Your task to perform on an android device: delete a single message in the gmail app Image 0: 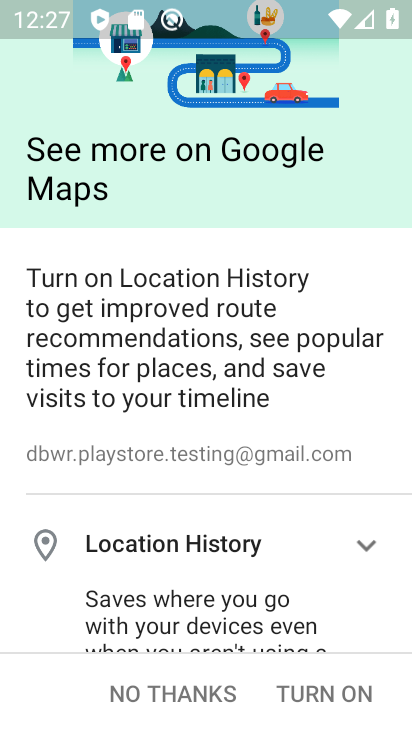
Step 0: click (131, 702)
Your task to perform on an android device: delete a single message in the gmail app Image 1: 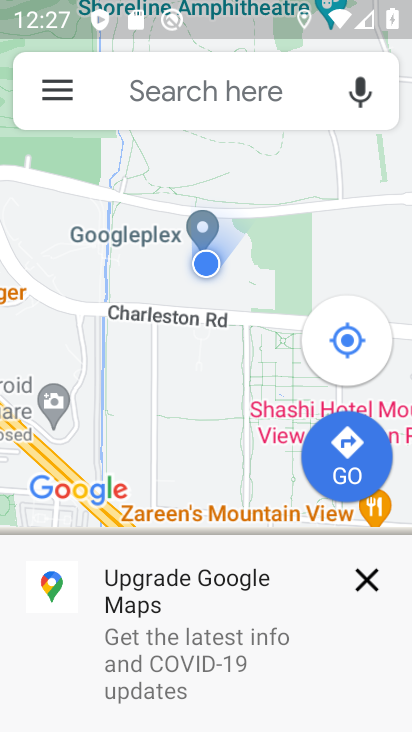
Step 1: press home button
Your task to perform on an android device: delete a single message in the gmail app Image 2: 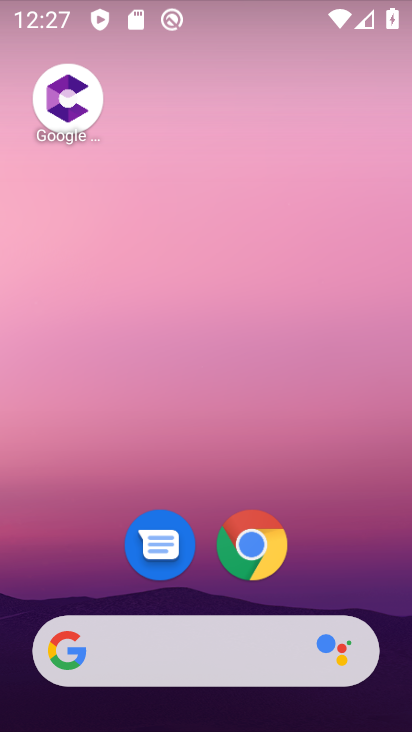
Step 2: drag from (299, 493) to (271, 233)
Your task to perform on an android device: delete a single message in the gmail app Image 3: 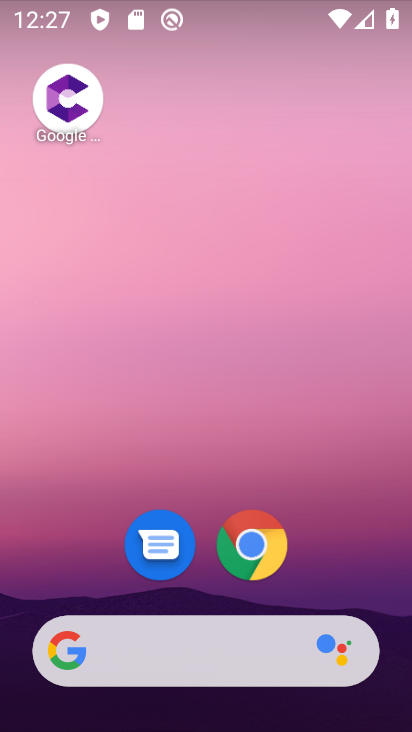
Step 3: drag from (204, 439) to (226, 123)
Your task to perform on an android device: delete a single message in the gmail app Image 4: 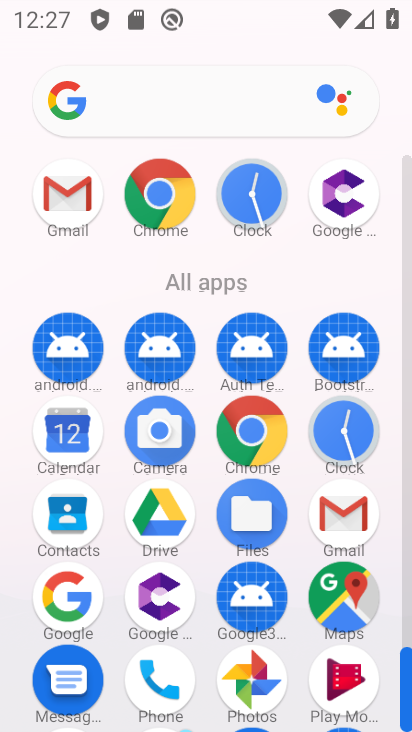
Step 4: click (361, 520)
Your task to perform on an android device: delete a single message in the gmail app Image 5: 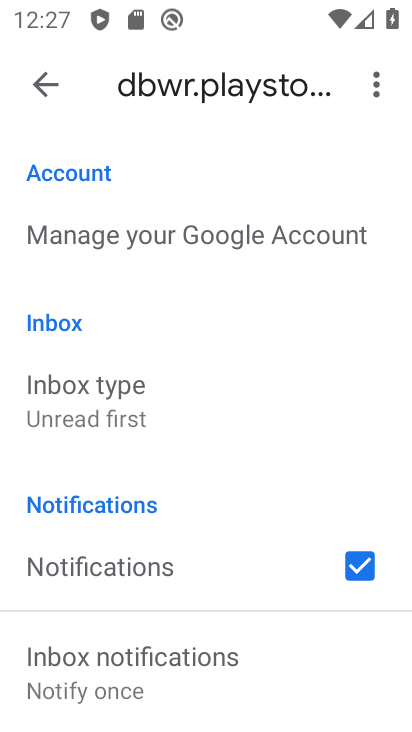
Step 5: press back button
Your task to perform on an android device: delete a single message in the gmail app Image 6: 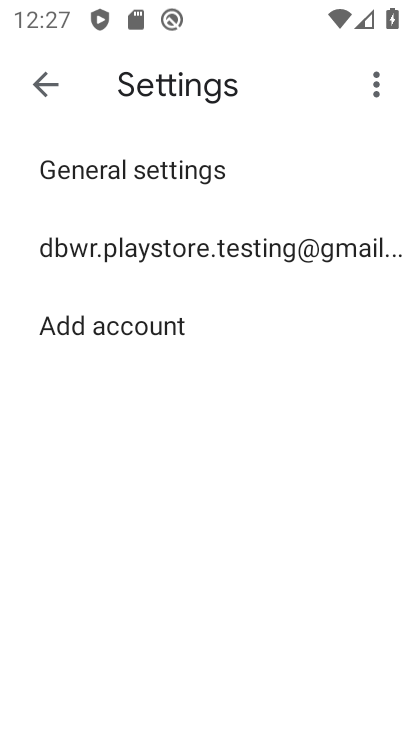
Step 6: press back button
Your task to perform on an android device: delete a single message in the gmail app Image 7: 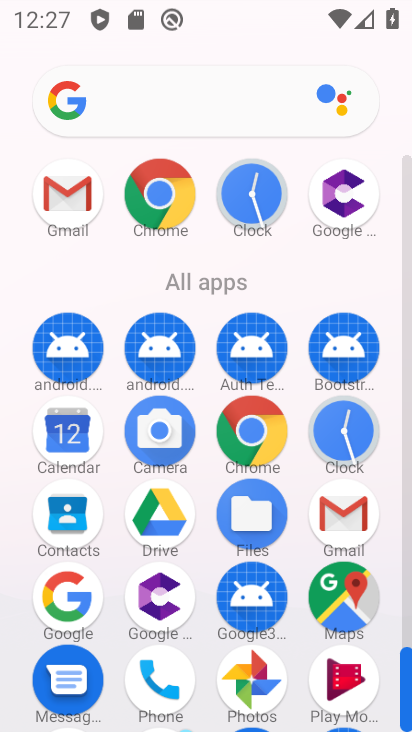
Step 7: click (70, 204)
Your task to perform on an android device: delete a single message in the gmail app Image 8: 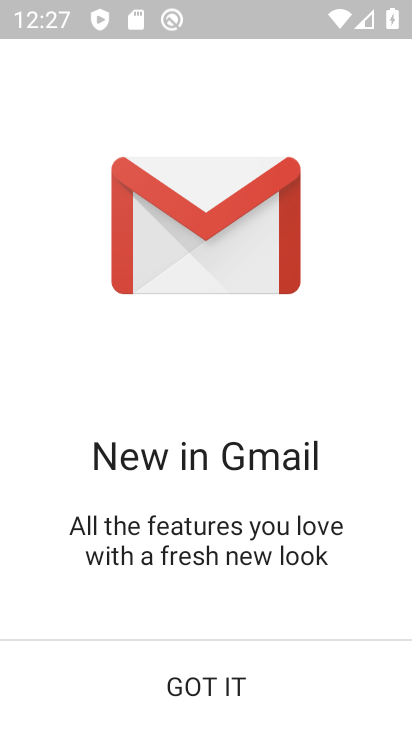
Step 8: click (179, 697)
Your task to perform on an android device: delete a single message in the gmail app Image 9: 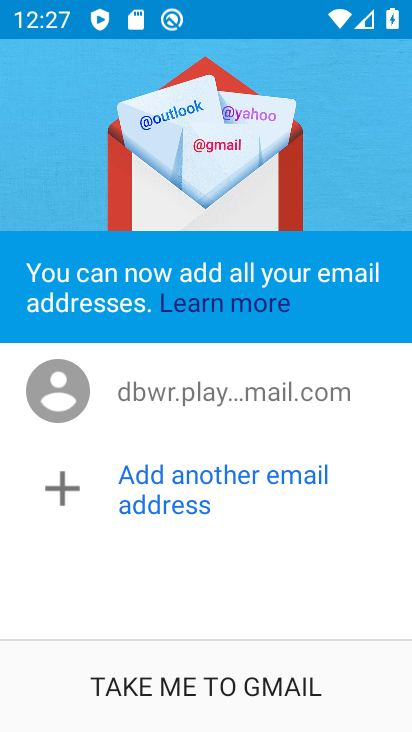
Step 9: click (236, 689)
Your task to perform on an android device: delete a single message in the gmail app Image 10: 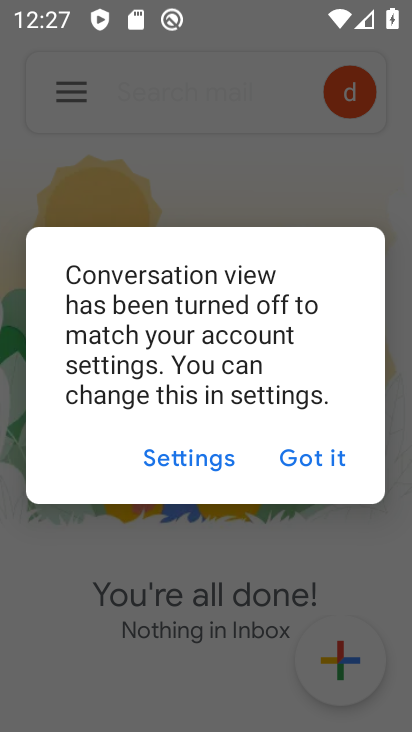
Step 10: click (300, 454)
Your task to perform on an android device: delete a single message in the gmail app Image 11: 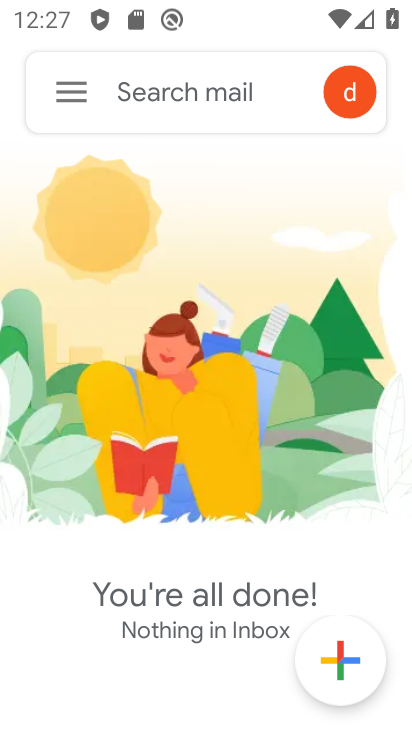
Step 11: click (70, 109)
Your task to perform on an android device: delete a single message in the gmail app Image 12: 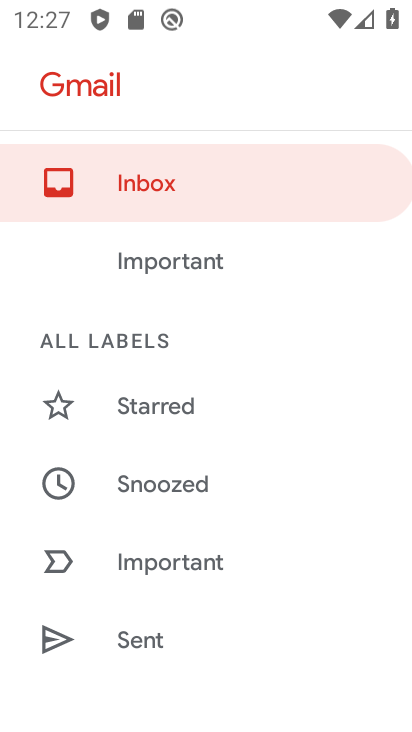
Step 12: drag from (173, 593) to (197, 299)
Your task to perform on an android device: delete a single message in the gmail app Image 13: 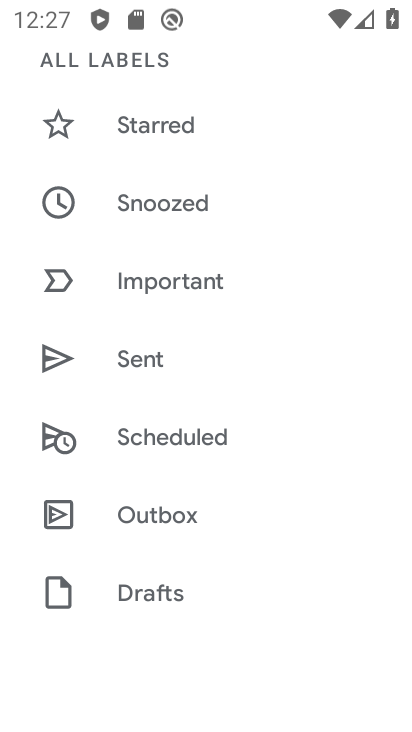
Step 13: drag from (178, 610) to (191, 273)
Your task to perform on an android device: delete a single message in the gmail app Image 14: 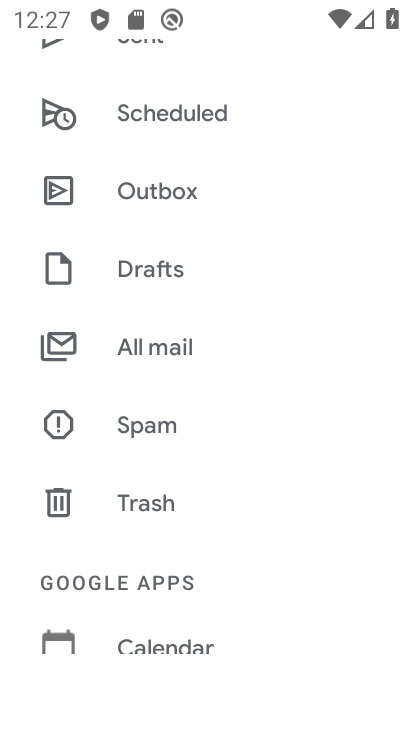
Step 14: click (188, 369)
Your task to perform on an android device: delete a single message in the gmail app Image 15: 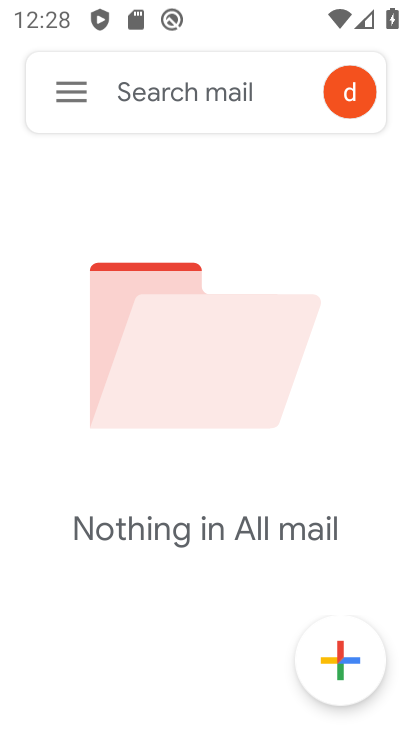
Step 15: task complete